Your task to perform on an android device: Open the calendar and show me this week's events? Image 0: 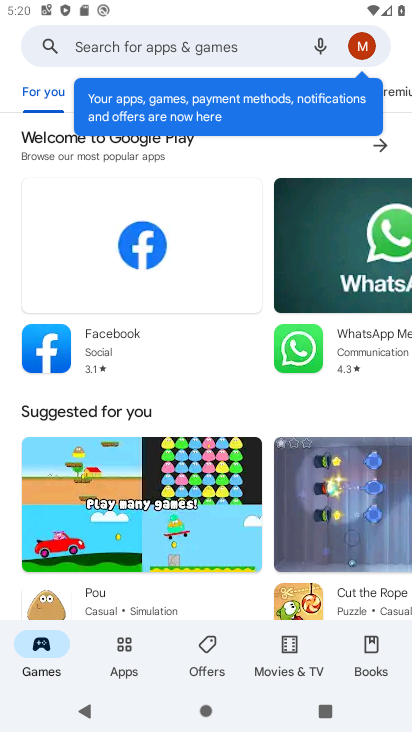
Step 0: press home button
Your task to perform on an android device: Open the calendar and show me this week's events? Image 1: 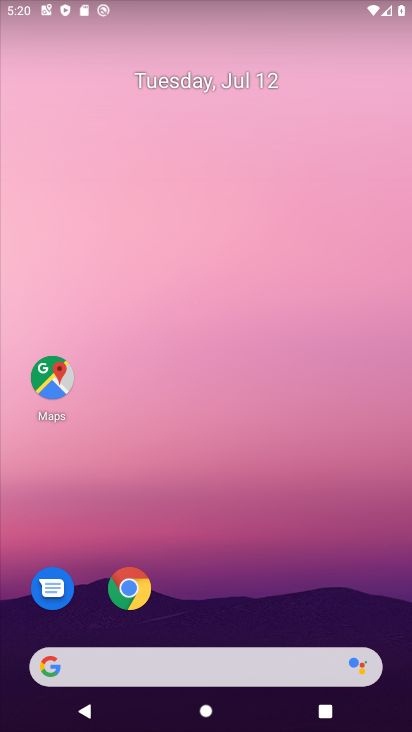
Step 1: drag from (306, 496) to (298, 84)
Your task to perform on an android device: Open the calendar and show me this week's events? Image 2: 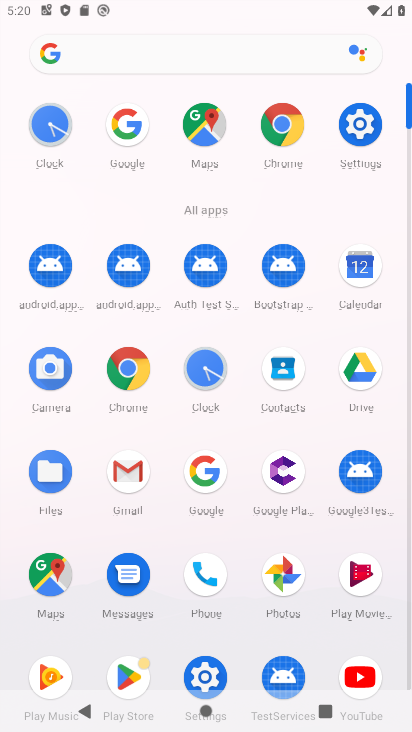
Step 2: click (374, 268)
Your task to perform on an android device: Open the calendar and show me this week's events? Image 3: 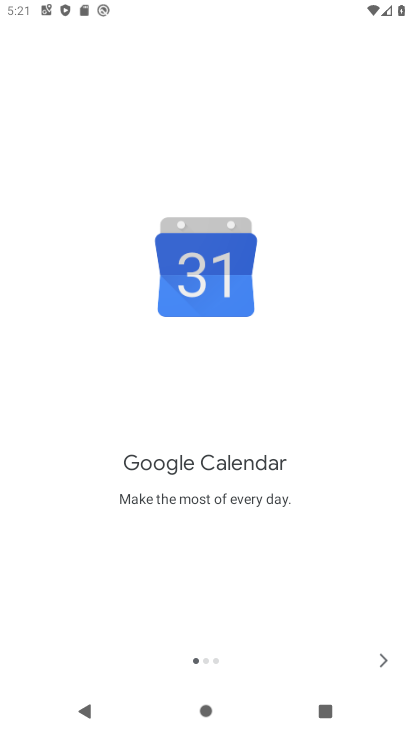
Step 3: click (376, 657)
Your task to perform on an android device: Open the calendar and show me this week's events? Image 4: 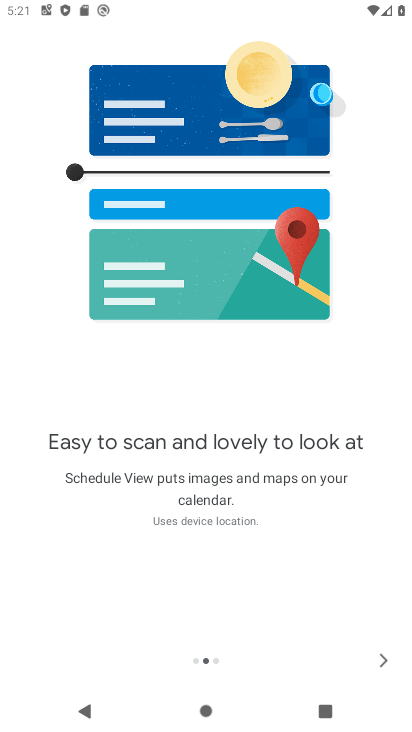
Step 4: click (378, 657)
Your task to perform on an android device: Open the calendar and show me this week's events? Image 5: 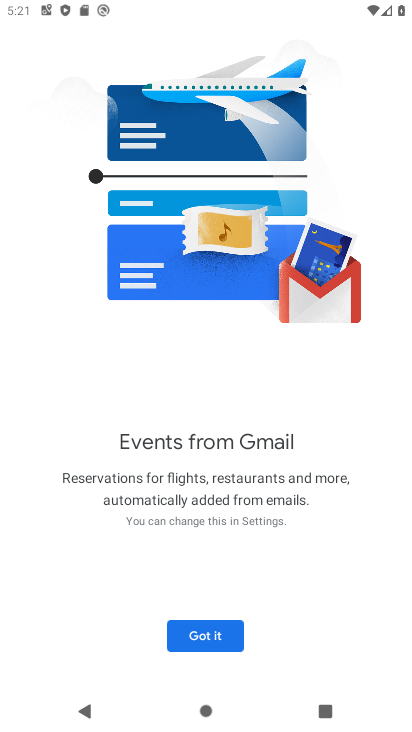
Step 5: click (212, 634)
Your task to perform on an android device: Open the calendar and show me this week's events? Image 6: 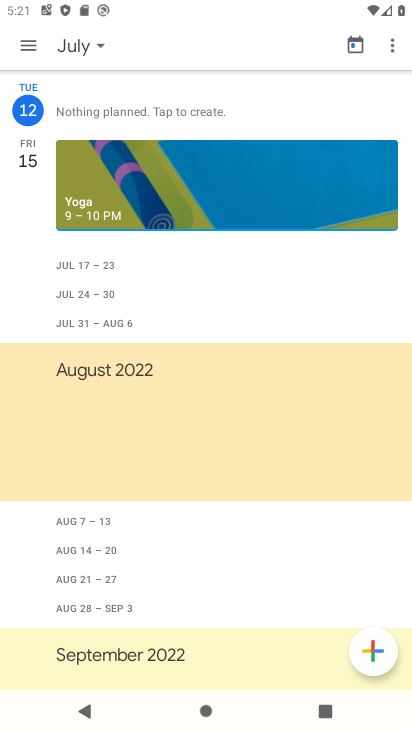
Step 6: click (65, 35)
Your task to perform on an android device: Open the calendar and show me this week's events? Image 7: 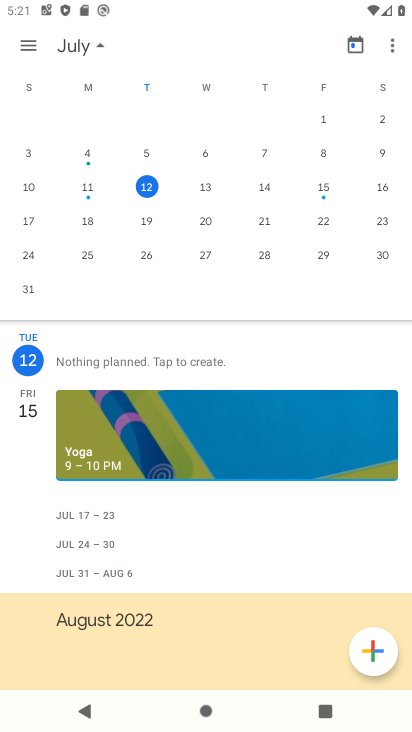
Step 7: task complete